Your task to perform on an android device: check out phone information Image 0: 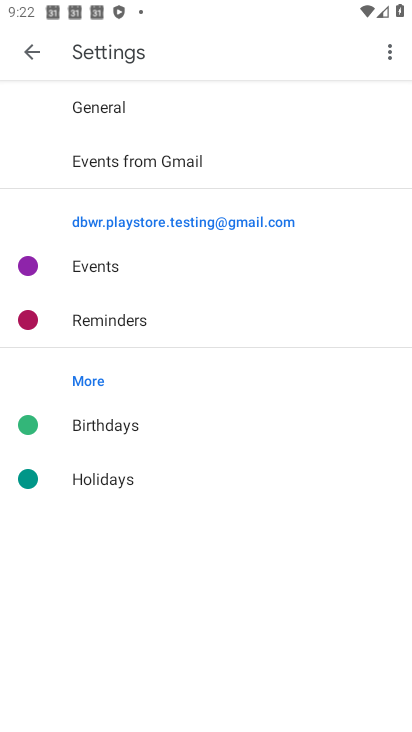
Step 0: press home button
Your task to perform on an android device: check out phone information Image 1: 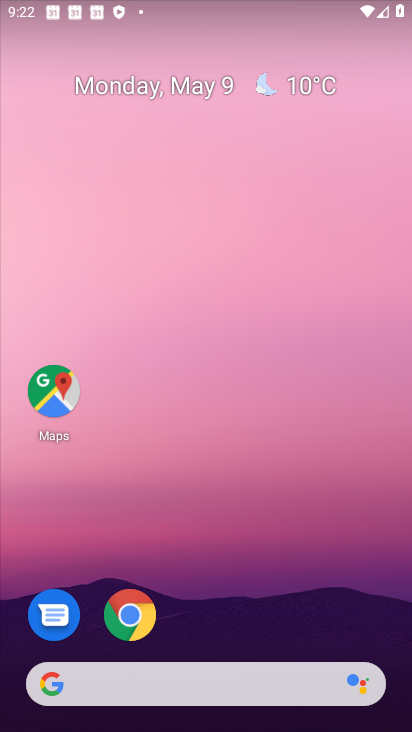
Step 1: drag from (189, 557) to (288, 8)
Your task to perform on an android device: check out phone information Image 2: 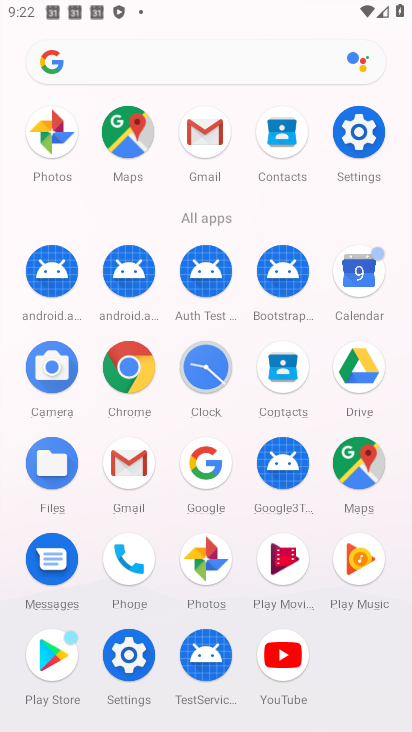
Step 2: click (133, 667)
Your task to perform on an android device: check out phone information Image 3: 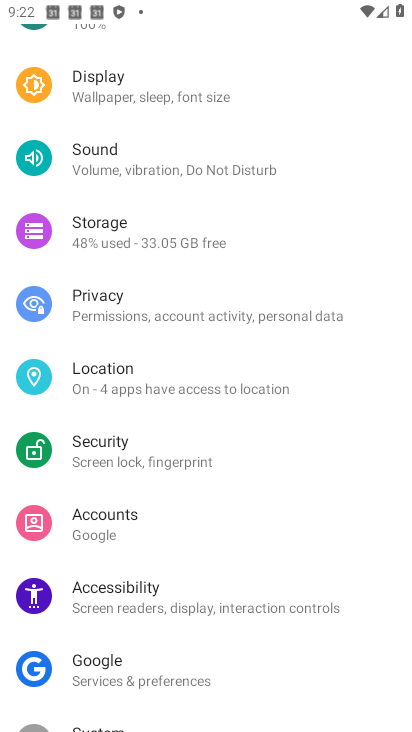
Step 3: drag from (133, 667) to (272, 214)
Your task to perform on an android device: check out phone information Image 4: 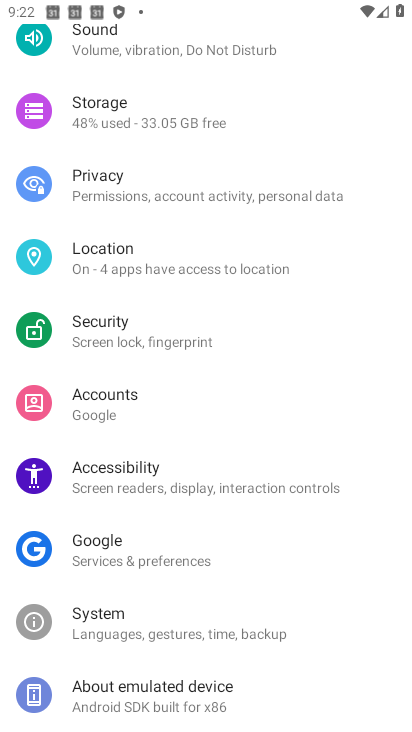
Step 4: click (136, 686)
Your task to perform on an android device: check out phone information Image 5: 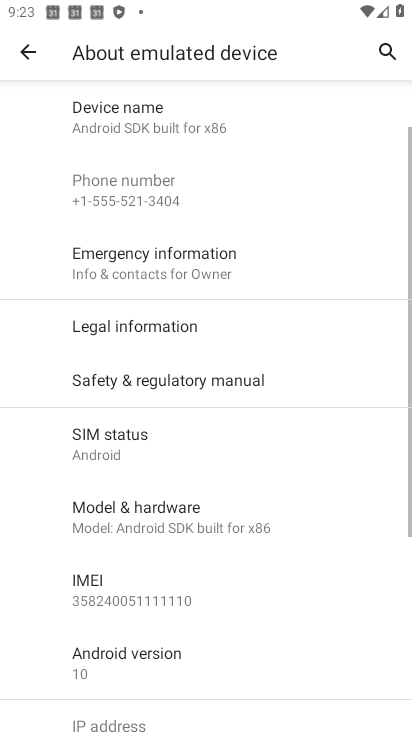
Step 5: task complete